Your task to perform on an android device: Show me the alarms in the clock app Image 0: 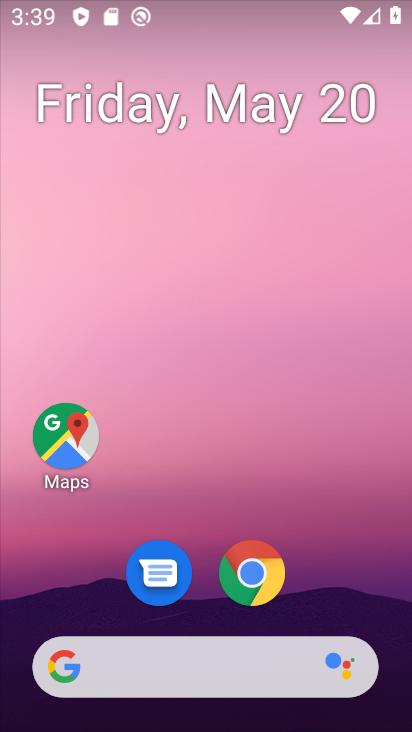
Step 0: drag from (373, 610) to (291, 220)
Your task to perform on an android device: Show me the alarms in the clock app Image 1: 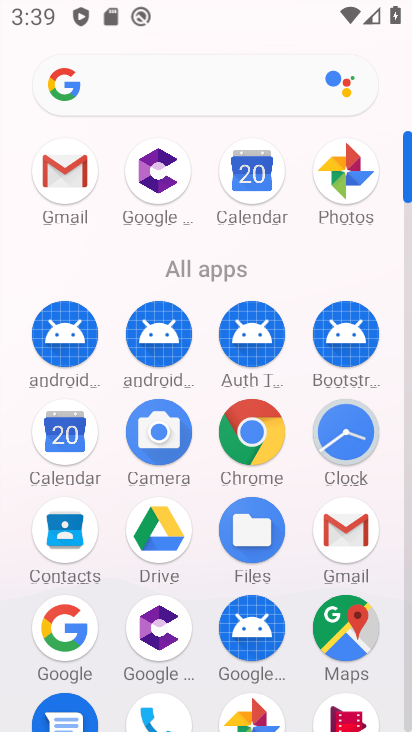
Step 1: click (353, 434)
Your task to perform on an android device: Show me the alarms in the clock app Image 2: 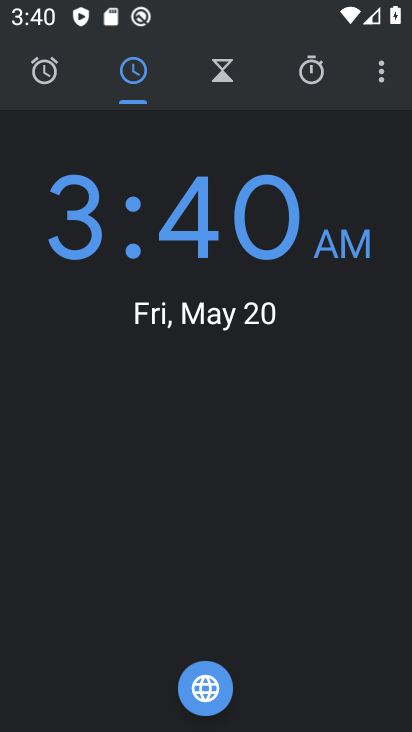
Step 2: click (63, 74)
Your task to perform on an android device: Show me the alarms in the clock app Image 3: 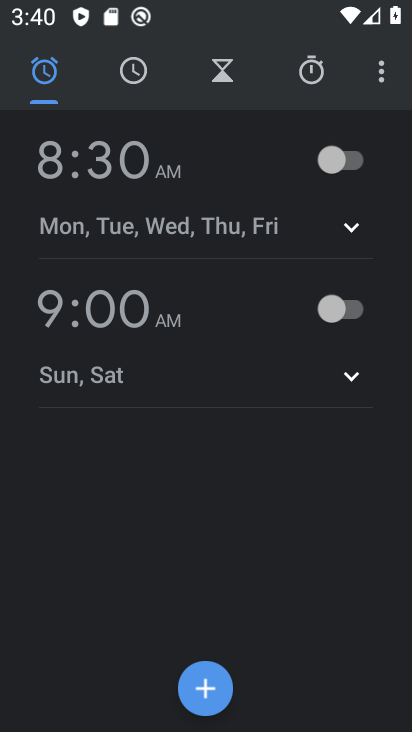
Step 3: task complete